Your task to perform on an android device: turn notification dots off Image 0: 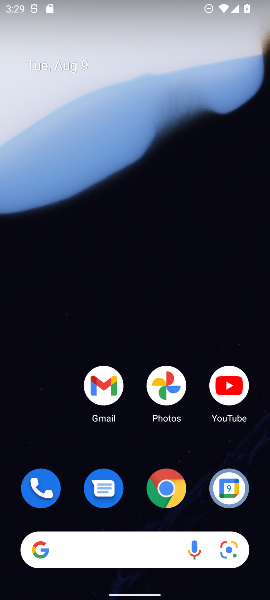
Step 0: drag from (203, 449) to (184, 126)
Your task to perform on an android device: turn notification dots off Image 1: 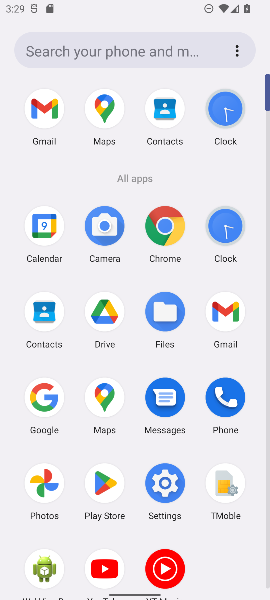
Step 1: click (172, 476)
Your task to perform on an android device: turn notification dots off Image 2: 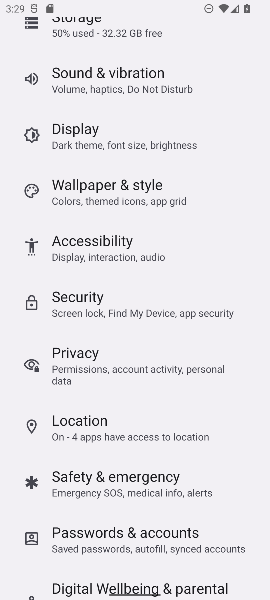
Step 2: drag from (173, 86) to (159, 398)
Your task to perform on an android device: turn notification dots off Image 3: 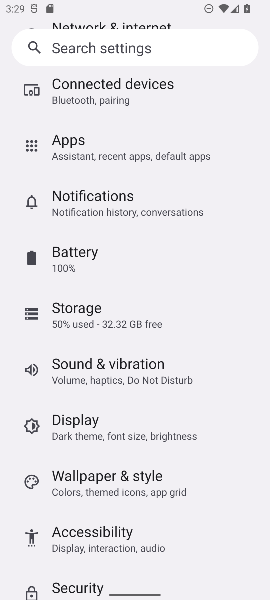
Step 3: click (148, 215)
Your task to perform on an android device: turn notification dots off Image 4: 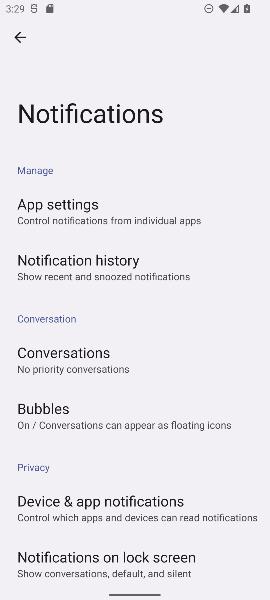
Step 4: drag from (198, 517) to (178, 294)
Your task to perform on an android device: turn notification dots off Image 5: 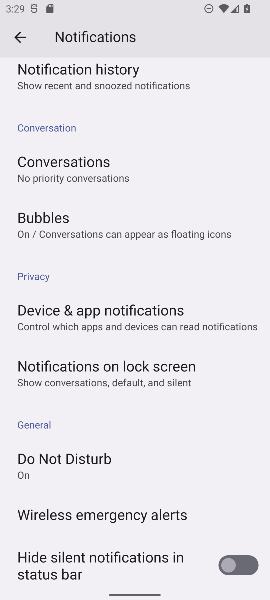
Step 5: drag from (190, 490) to (172, 245)
Your task to perform on an android device: turn notification dots off Image 6: 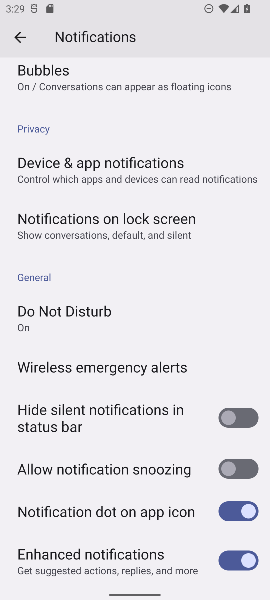
Step 6: click (233, 512)
Your task to perform on an android device: turn notification dots off Image 7: 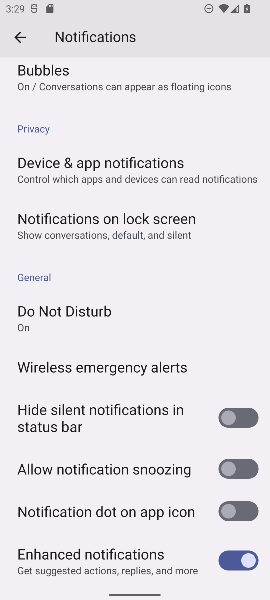
Step 7: task complete